Your task to perform on an android device: open app "Google Play Music" Image 0: 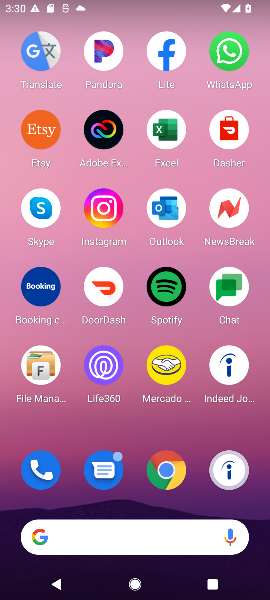
Step 0: drag from (90, 491) to (111, 135)
Your task to perform on an android device: open app "Google Play Music" Image 1: 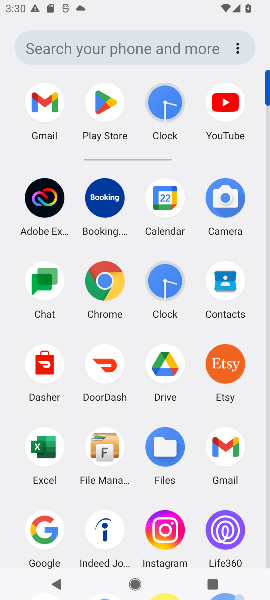
Step 1: drag from (80, 532) to (110, 151)
Your task to perform on an android device: open app "Google Play Music" Image 2: 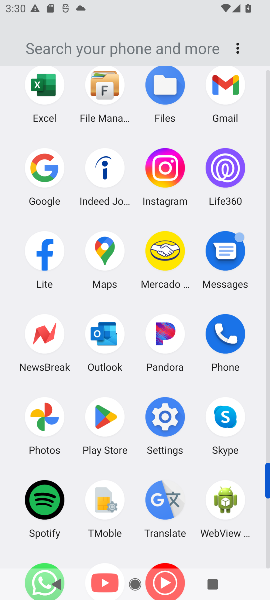
Step 2: drag from (81, 568) to (106, 219)
Your task to perform on an android device: open app "Google Play Music" Image 3: 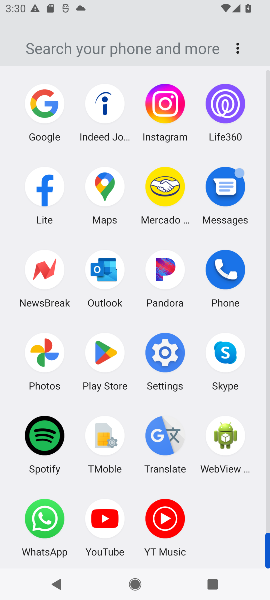
Step 3: click (101, 342)
Your task to perform on an android device: open app "Google Play Music" Image 4: 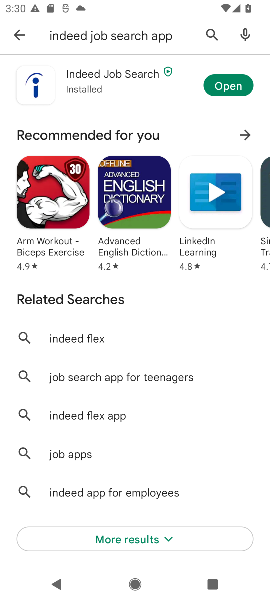
Step 4: click (15, 28)
Your task to perform on an android device: open app "Google Play Music" Image 5: 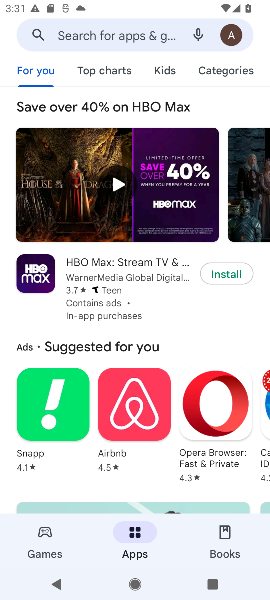
Step 5: click (124, 27)
Your task to perform on an android device: open app "Google Play Music" Image 6: 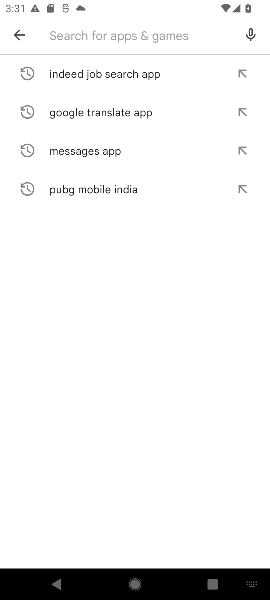
Step 6: type "Google Play Music "
Your task to perform on an android device: open app "Google Play Music" Image 7: 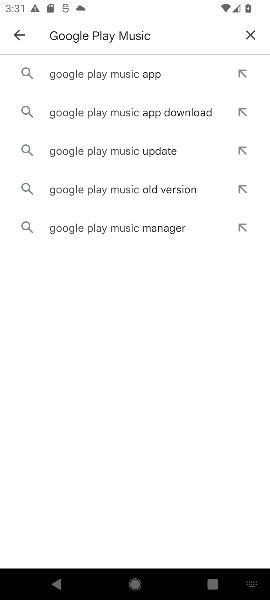
Step 7: click (133, 72)
Your task to perform on an android device: open app "Google Play Music" Image 8: 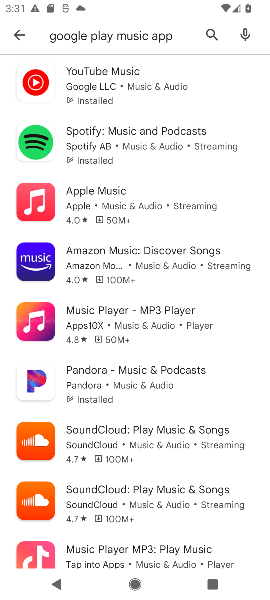
Step 8: click (141, 86)
Your task to perform on an android device: open app "Google Play Music" Image 9: 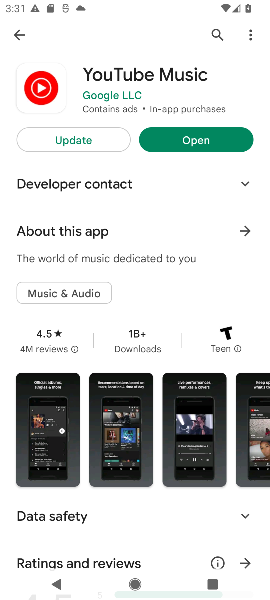
Step 9: click (185, 140)
Your task to perform on an android device: open app "Google Play Music" Image 10: 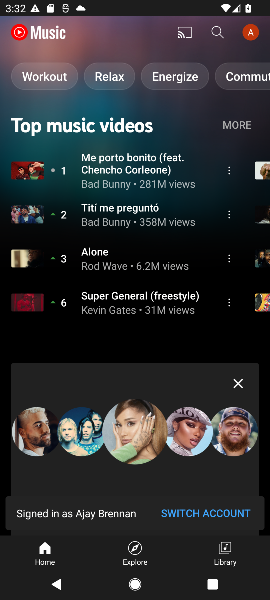
Step 10: task complete